Your task to perform on an android device: Go to Amazon Image 0: 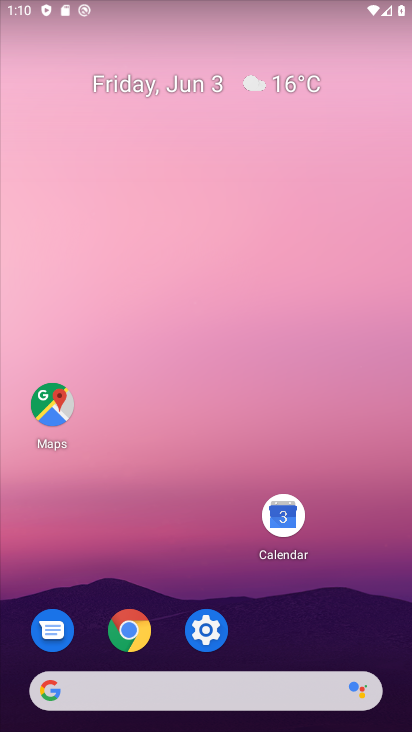
Step 0: drag from (234, 707) to (250, 117)
Your task to perform on an android device: Go to Amazon Image 1: 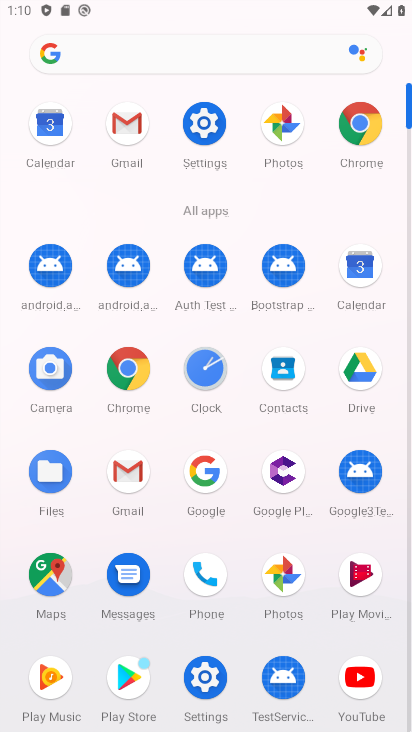
Step 1: click (353, 141)
Your task to perform on an android device: Go to Amazon Image 2: 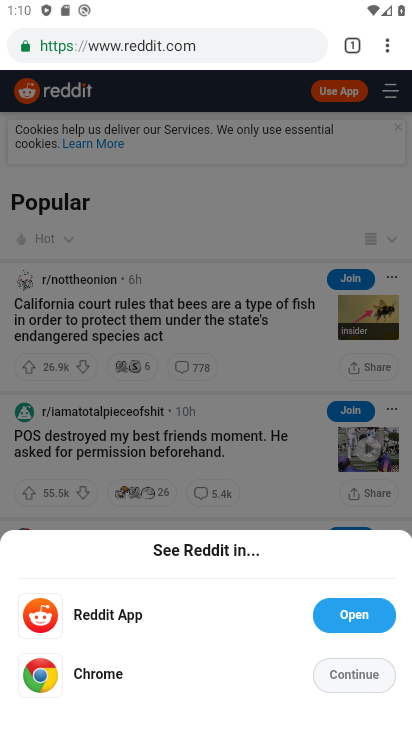
Step 2: click (346, 44)
Your task to perform on an android device: Go to Amazon Image 3: 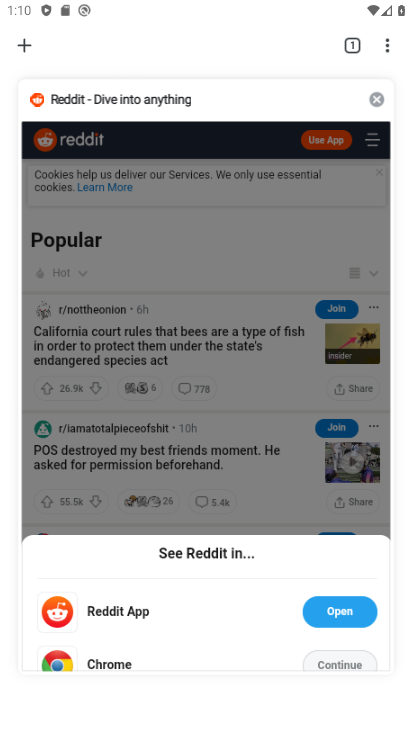
Step 3: click (28, 48)
Your task to perform on an android device: Go to Amazon Image 4: 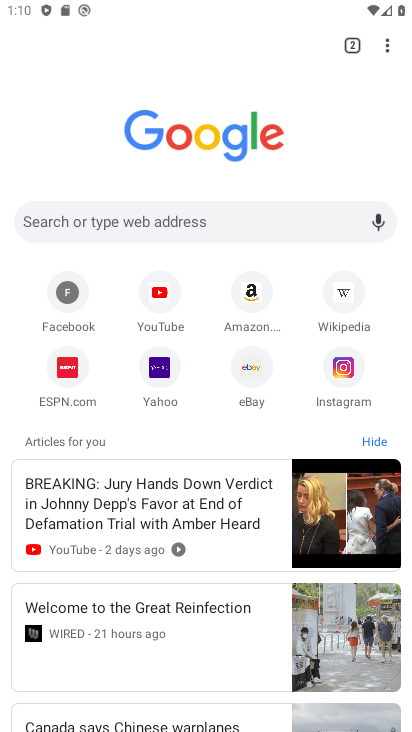
Step 4: click (250, 309)
Your task to perform on an android device: Go to Amazon Image 5: 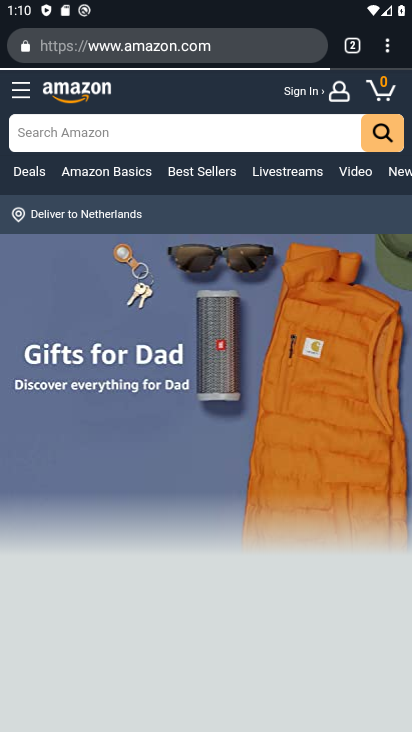
Step 5: task complete